Your task to perform on an android device: change notifications settings Image 0: 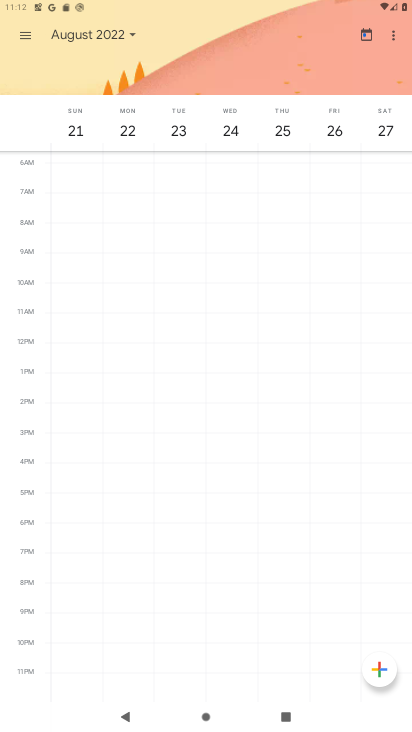
Step 0: press home button
Your task to perform on an android device: change notifications settings Image 1: 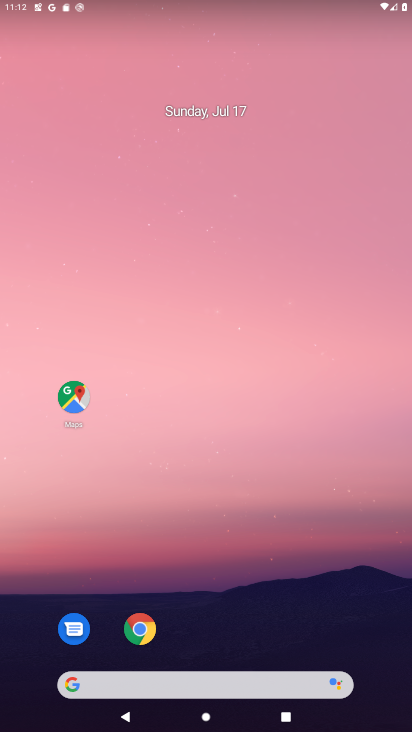
Step 1: drag from (201, 688) to (306, 206)
Your task to perform on an android device: change notifications settings Image 2: 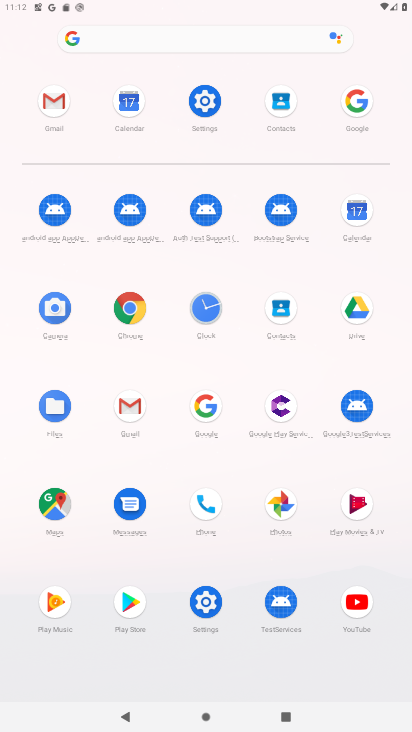
Step 2: click (49, 105)
Your task to perform on an android device: change notifications settings Image 3: 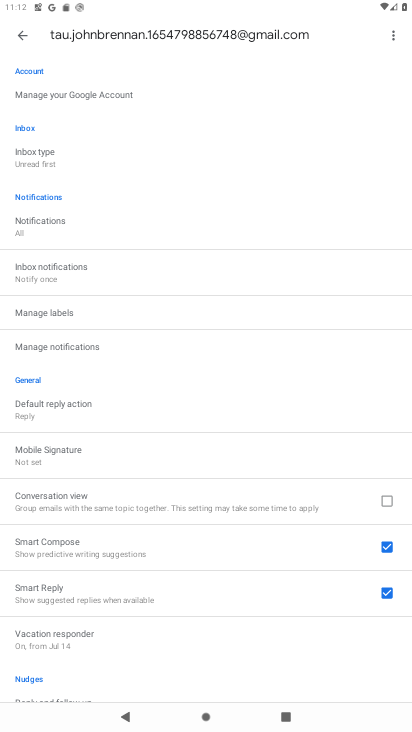
Step 3: click (60, 346)
Your task to perform on an android device: change notifications settings Image 4: 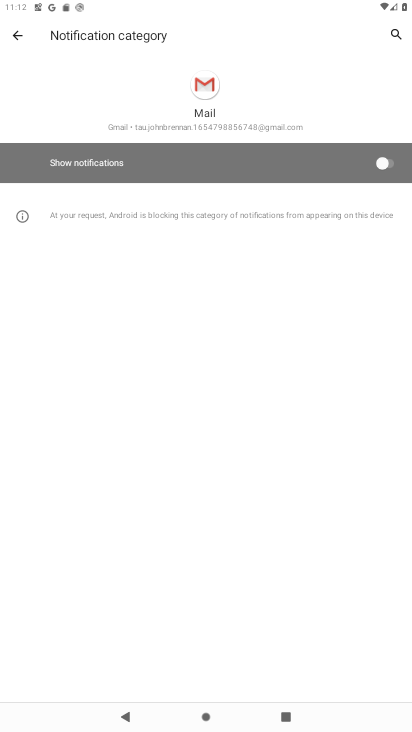
Step 4: click (389, 161)
Your task to perform on an android device: change notifications settings Image 5: 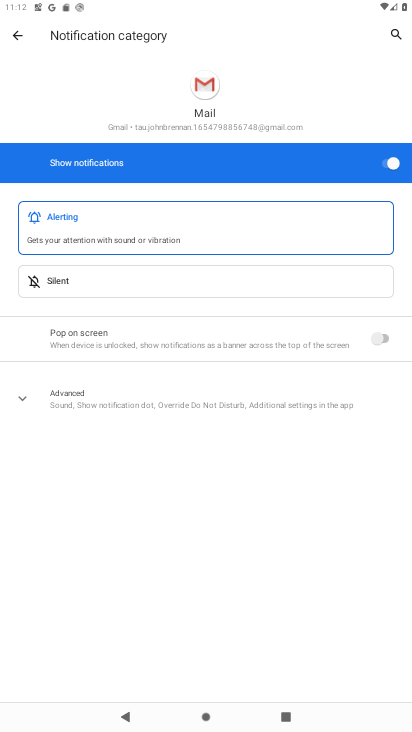
Step 5: task complete